Your task to perform on an android device: find photos in the google photos app Image 0: 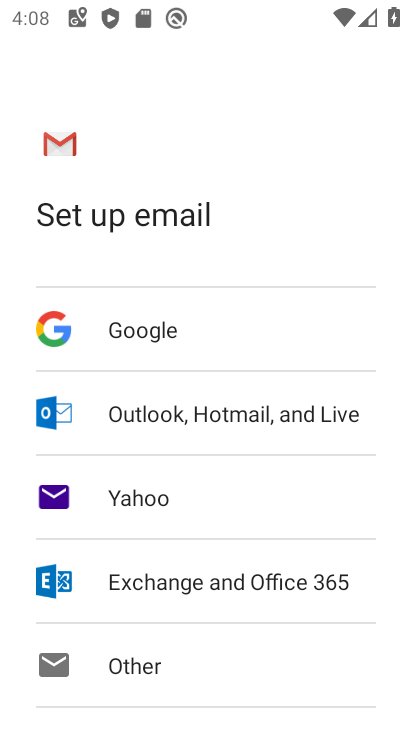
Step 0: press back button
Your task to perform on an android device: find photos in the google photos app Image 1: 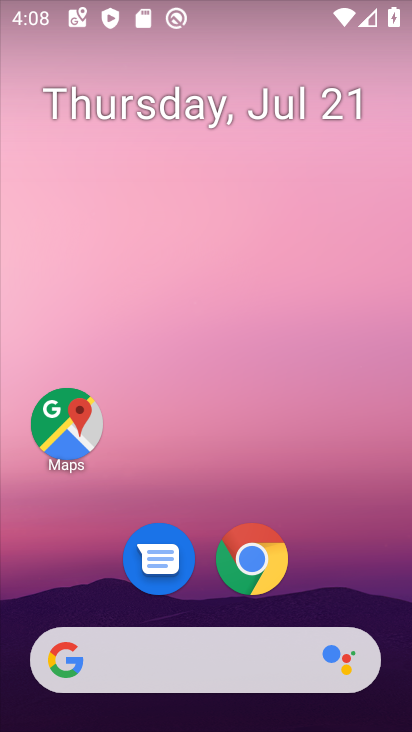
Step 1: drag from (46, 593) to (241, 41)
Your task to perform on an android device: find photos in the google photos app Image 2: 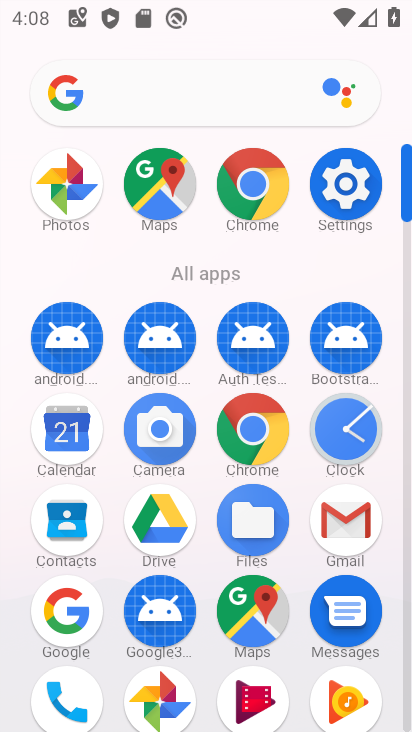
Step 2: click (186, 690)
Your task to perform on an android device: find photos in the google photos app Image 3: 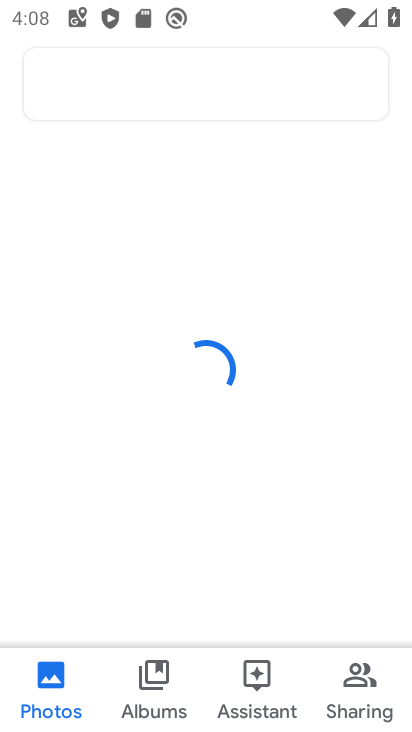
Step 3: click (62, 697)
Your task to perform on an android device: find photos in the google photos app Image 4: 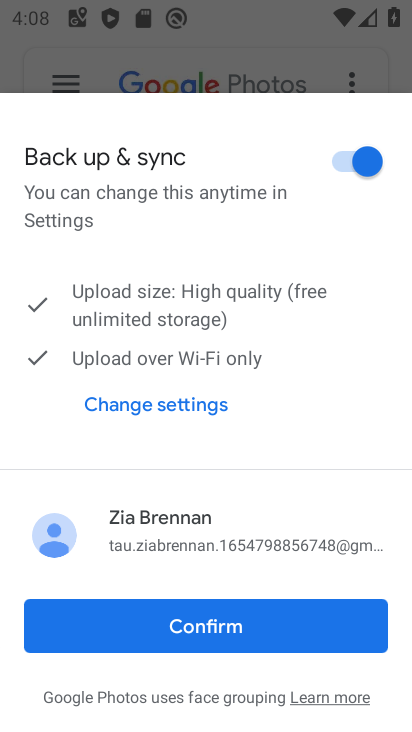
Step 4: click (153, 605)
Your task to perform on an android device: find photos in the google photos app Image 5: 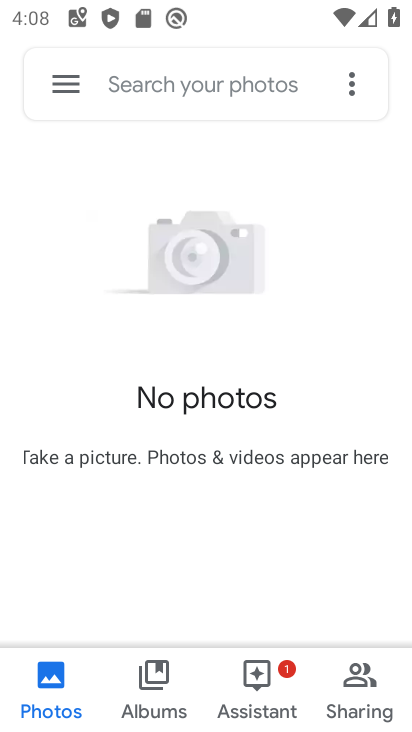
Step 5: task complete